Your task to perform on an android device: Open sound settings Image 0: 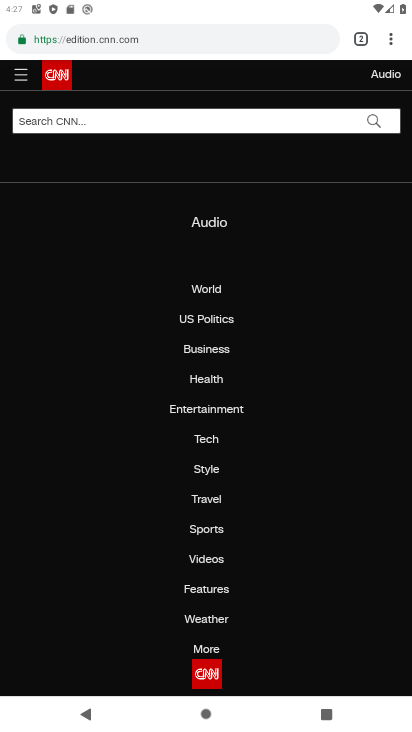
Step 0: press home button
Your task to perform on an android device: Open sound settings Image 1: 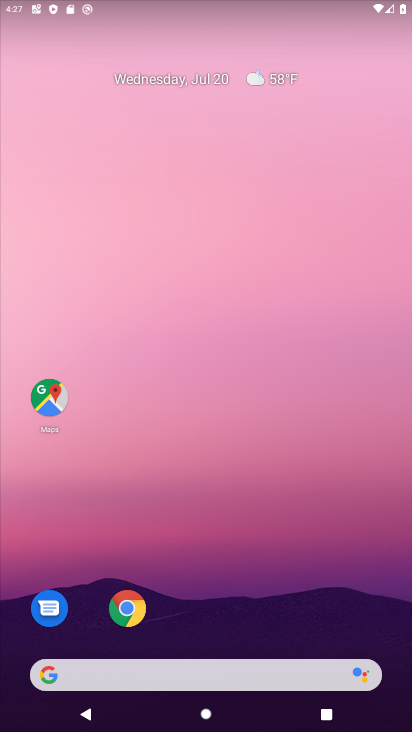
Step 1: drag from (220, 626) to (177, 19)
Your task to perform on an android device: Open sound settings Image 2: 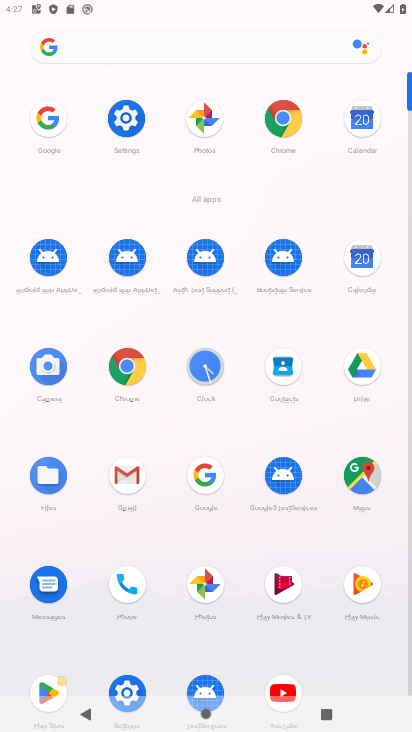
Step 2: click (132, 107)
Your task to perform on an android device: Open sound settings Image 3: 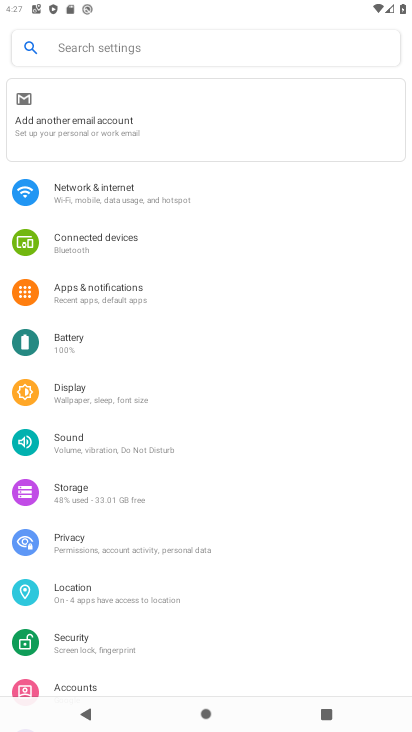
Step 3: click (60, 434)
Your task to perform on an android device: Open sound settings Image 4: 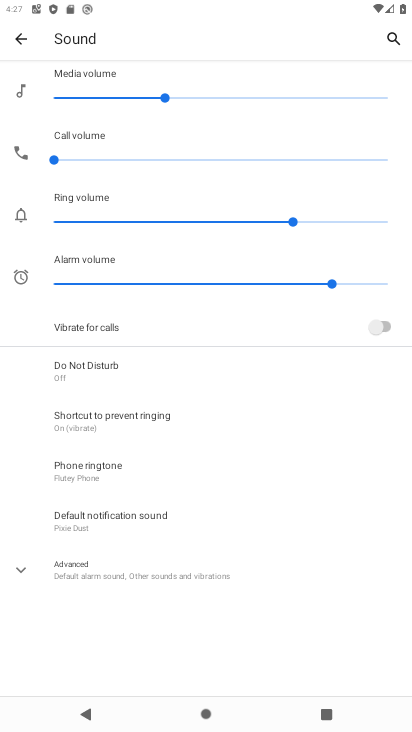
Step 4: click (121, 561)
Your task to perform on an android device: Open sound settings Image 5: 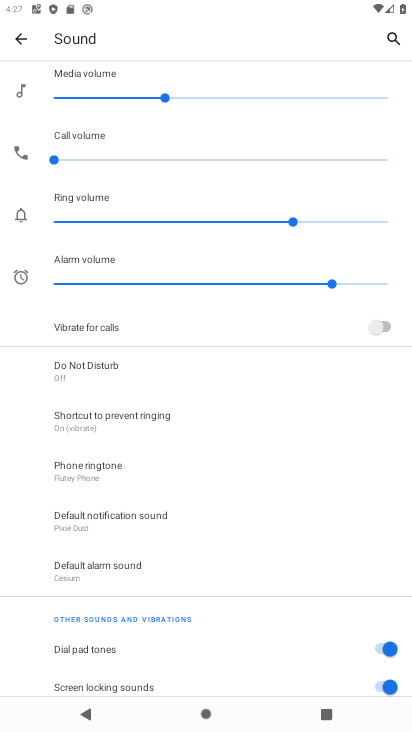
Step 5: task complete